Your task to perform on an android device: turn on the 24-hour format for clock Image 0: 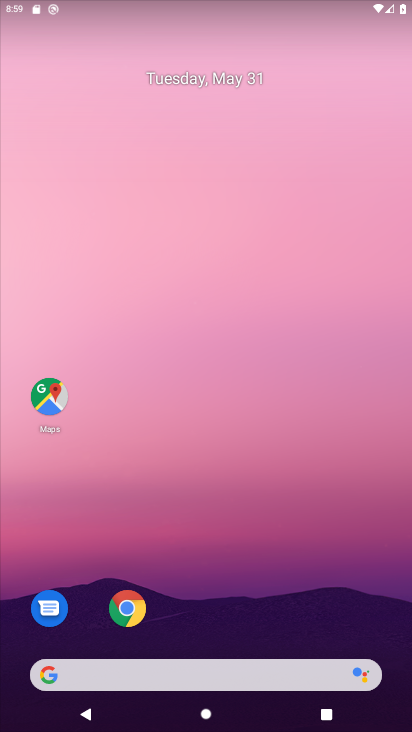
Step 0: drag from (284, 618) to (246, 155)
Your task to perform on an android device: turn on the 24-hour format for clock Image 1: 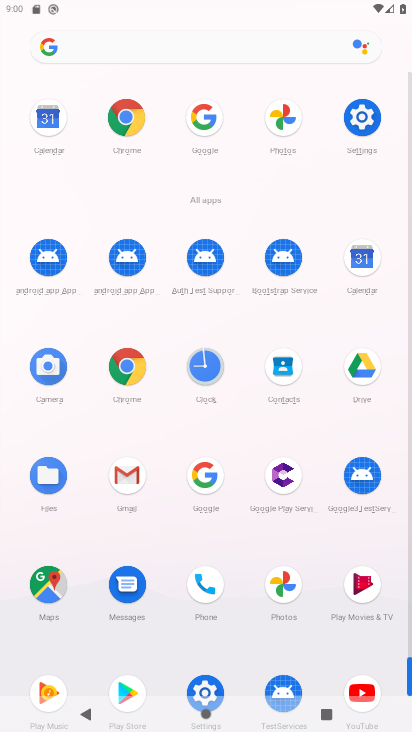
Step 1: click (205, 366)
Your task to perform on an android device: turn on the 24-hour format for clock Image 2: 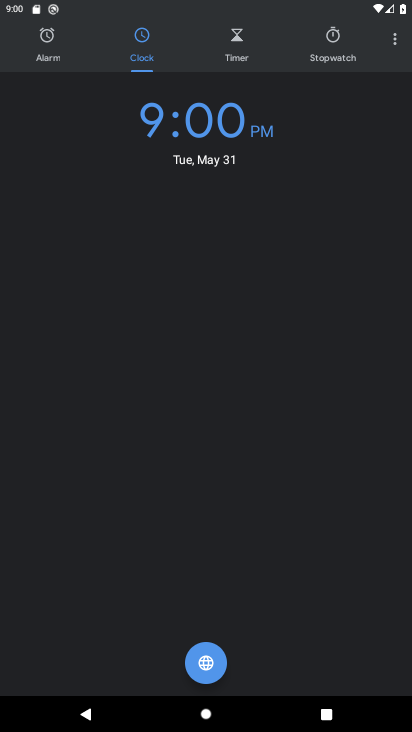
Step 2: click (397, 39)
Your task to perform on an android device: turn on the 24-hour format for clock Image 3: 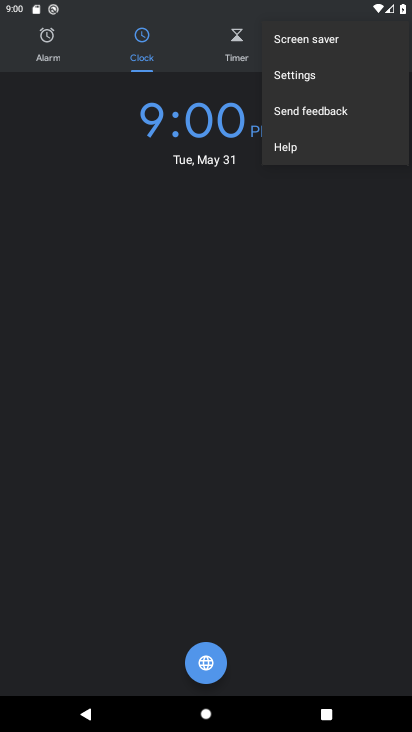
Step 3: click (304, 76)
Your task to perform on an android device: turn on the 24-hour format for clock Image 4: 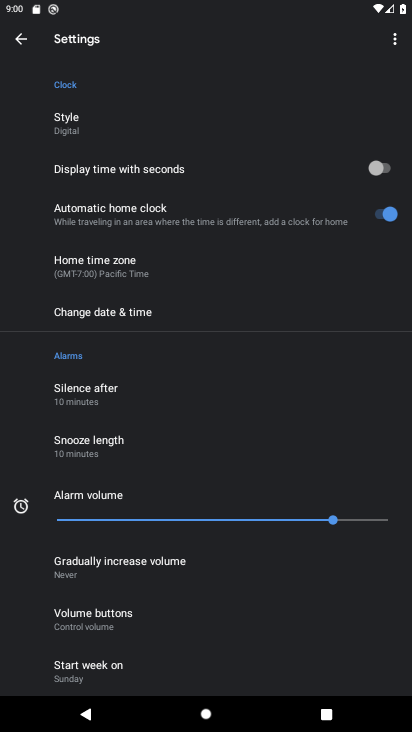
Step 4: click (128, 318)
Your task to perform on an android device: turn on the 24-hour format for clock Image 5: 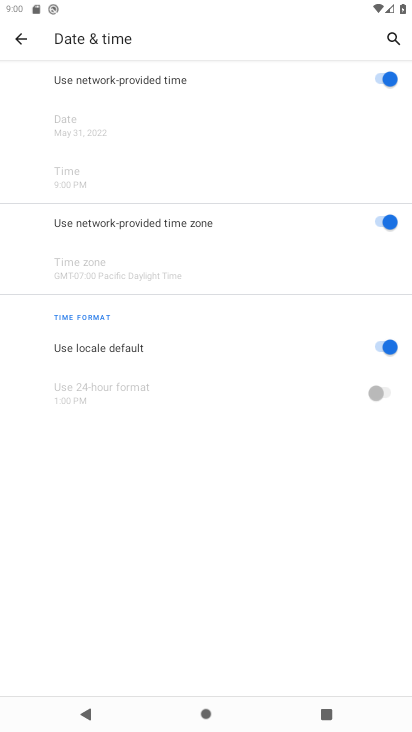
Step 5: click (385, 345)
Your task to perform on an android device: turn on the 24-hour format for clock Image 6: 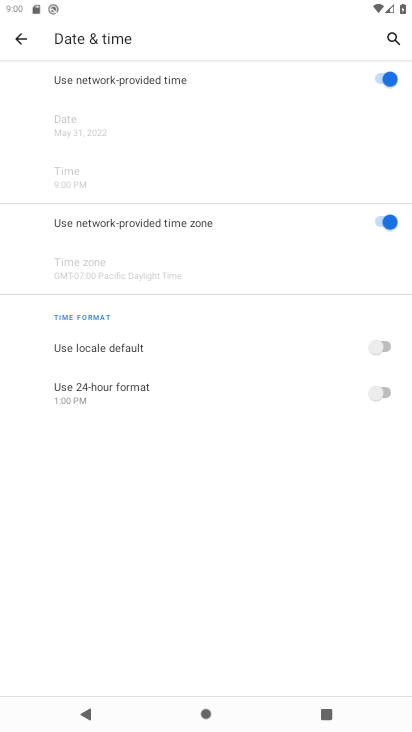
Step 6: click (387, 395)
Your task to perform on an android device: turn on the 24-hour format for clock Image 7: 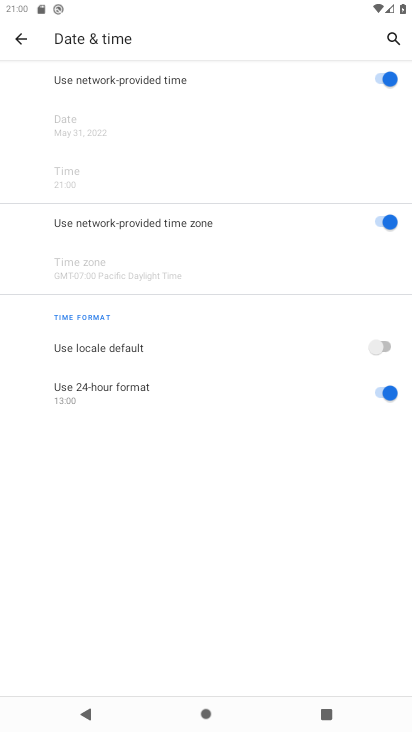
Step 7: task complete